Your task to perform on an android device: Is it going to rain today? Image 0: 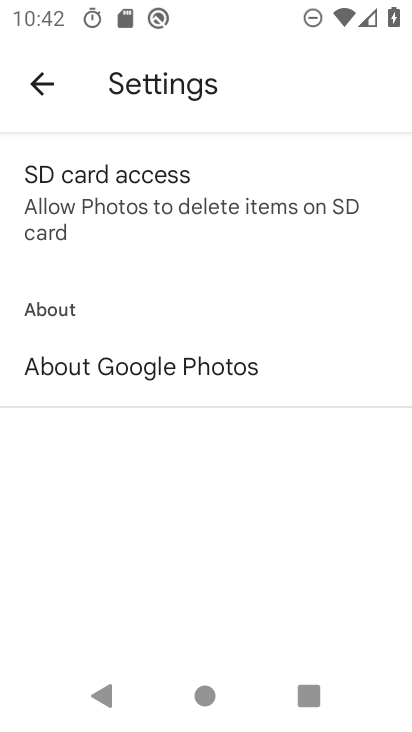
Step 0: press home button
Your task to perform on an android device: Is it going to rain today? Image 1: 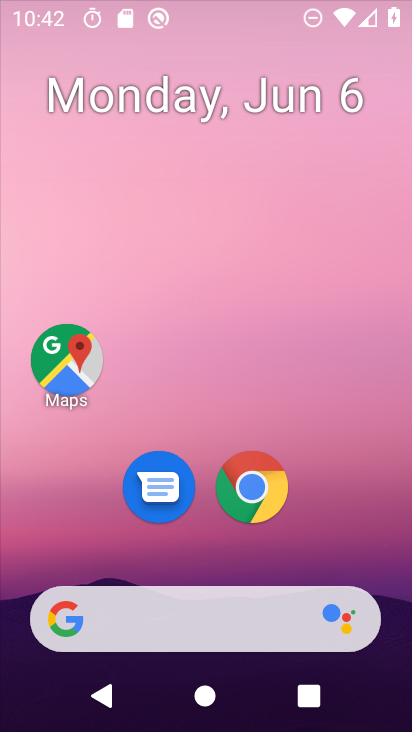
Step 1: drag from (392, 633) to (266, 55)
Your task to perform on an android device: Is it going to rain today? Image 2: 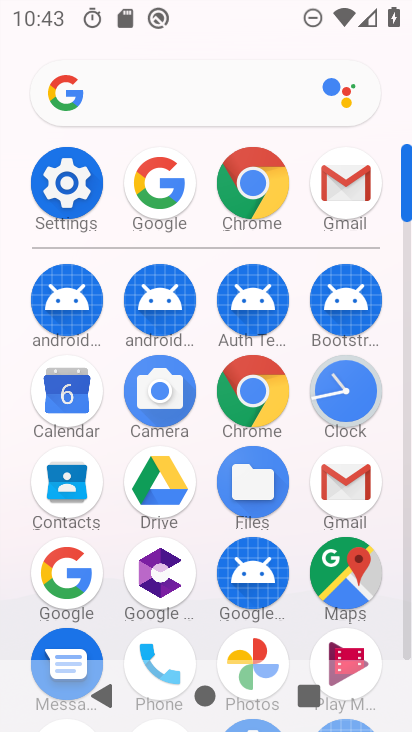
Step 2: click (47, 576)
Your task to perform on an android device: Is it going to rain today? Image 3: 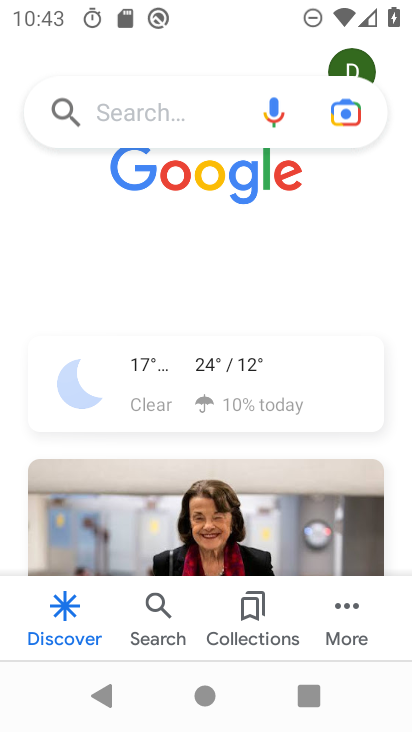
Step 3: click (158, 127)
Your task to perform on an android device: Is it going to rain today? Image 4: 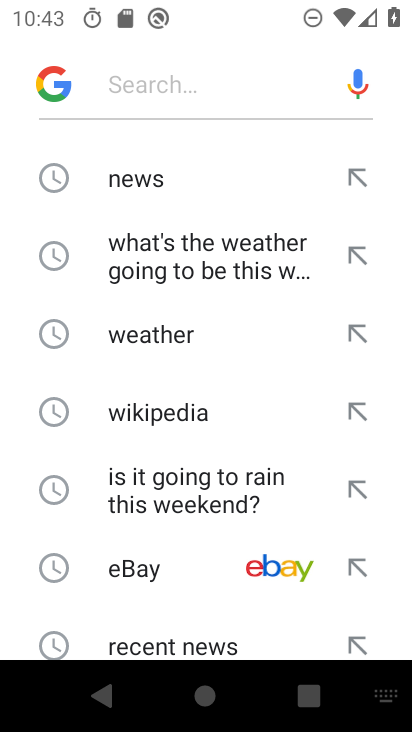
Step 4: drag from (178, 584) to (217, 293)
Your task to perform on an android device: Is it going to rain today? Image 5: 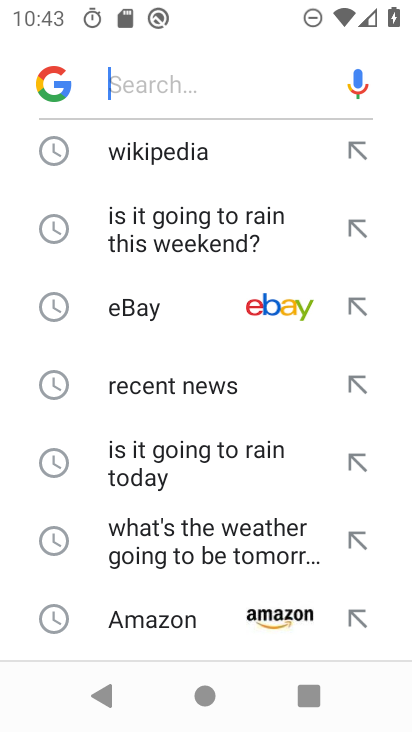
Step 5: click (192, 443)
Your task to perform on an android device: Is it going to rain today? Image 6: 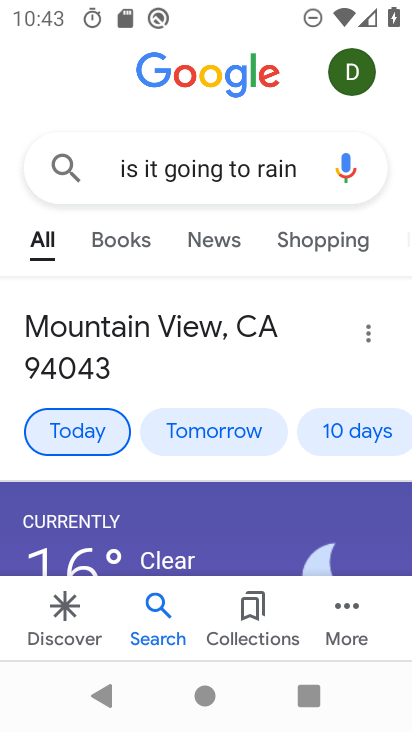
Step 6: task complete